Your task to perform on an android device: Open settings on Google Maps Image 0: 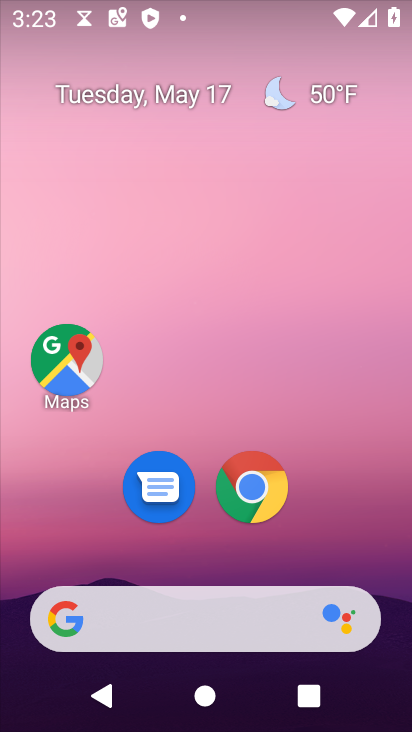
Step 0: click (67, 360)
Your task to perform on an android device: Open settings on Google Maps Image 1: 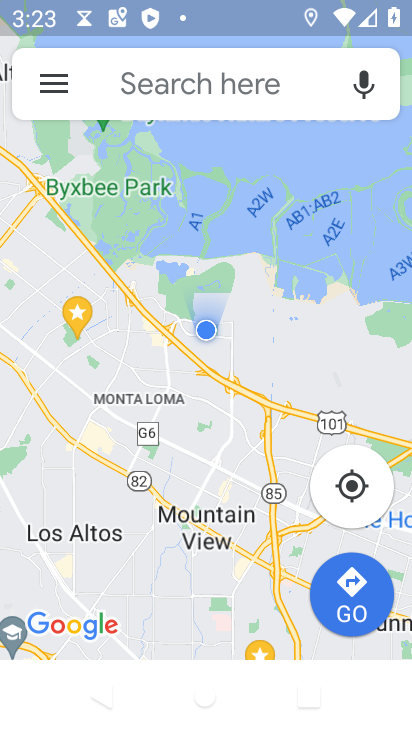
Step 1: click (46, 90)
Your task to perform on an android device: Open settings on Google Maps Image 2: 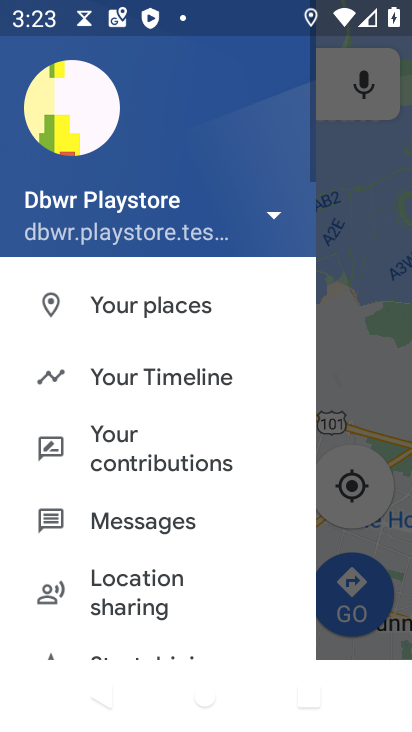
Step 2: drag from (239, 576) to (211, 90)
Your task to perform on an android device: Open settings on Google Maps Image 3: 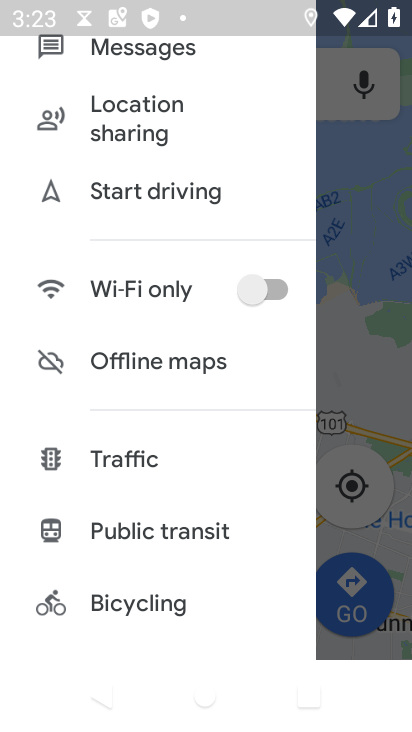
Step 3: drag from (207, 597) to (226, 88)
Your task to perform on an android device: Open settings on Google Maps Image 4: 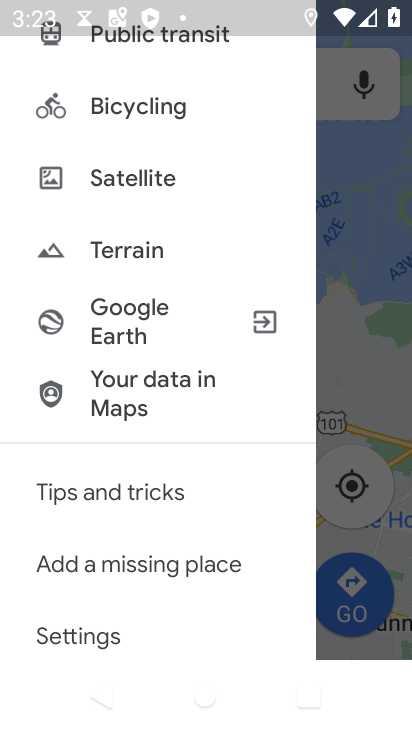
Step 4: click (98, 636)
Your task to perform on an android device: Open settings on Google Maps Image 5: 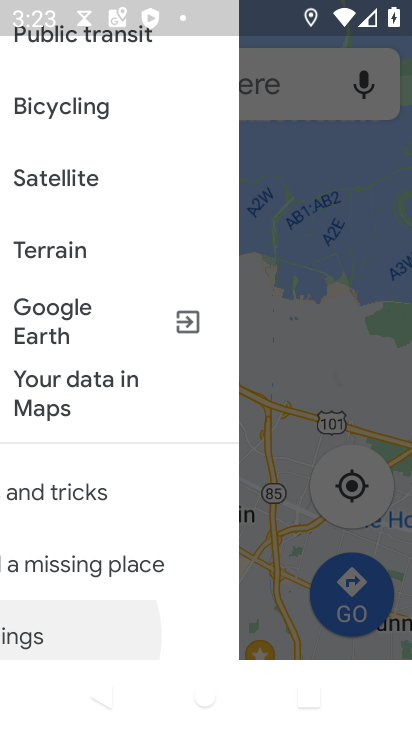
Step 5: click (98, 636)
Your task to perform on an android device: Open settings on Google Maps Image 6: 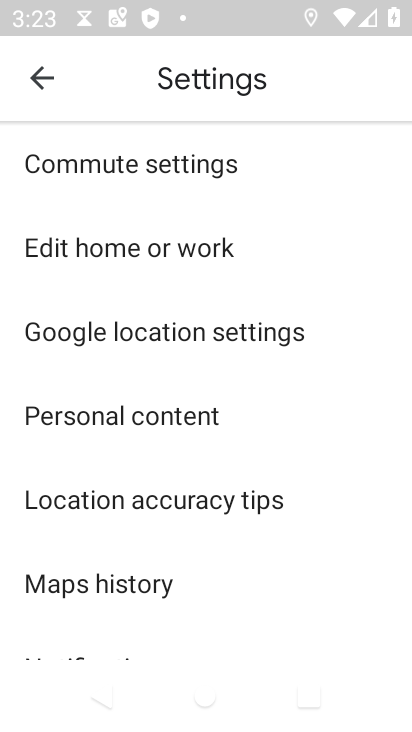
Step 6: task complete